Your task to perform on an android device: turn off notifications settings in the gmail app Image 0: 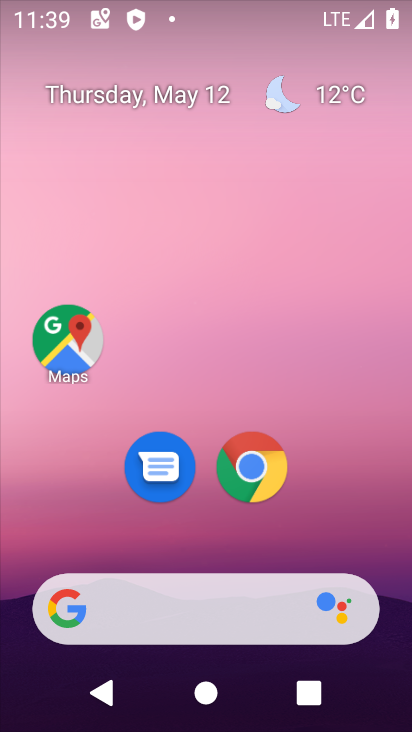
Step 0: drag from (319, 517) to (203, 10)
Your task to perform on an android device: turn off notifications settings in the gmail app Image 1: 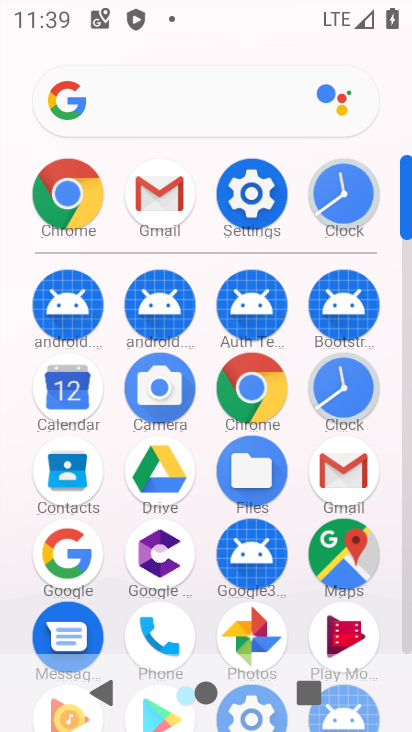
Step 1: drag from (20, 591) to (16, 291)
Your task to perform on an android device: turn off notifications settings in the gmail app Image 2: 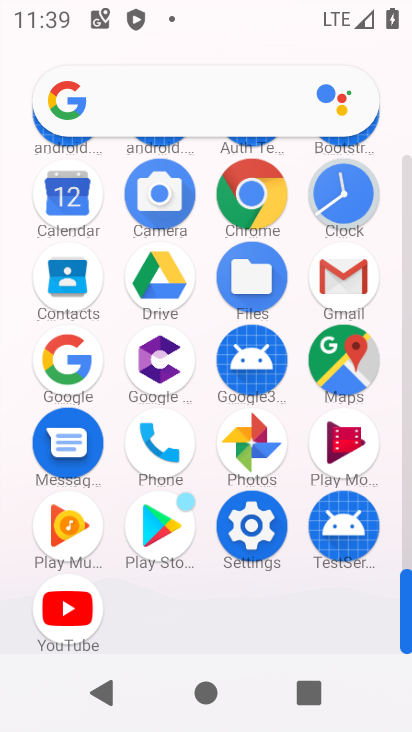
Step 2: click (342, 272)
Your task to perform on an android device: turn off notifications settings in the gmail app Image 3: 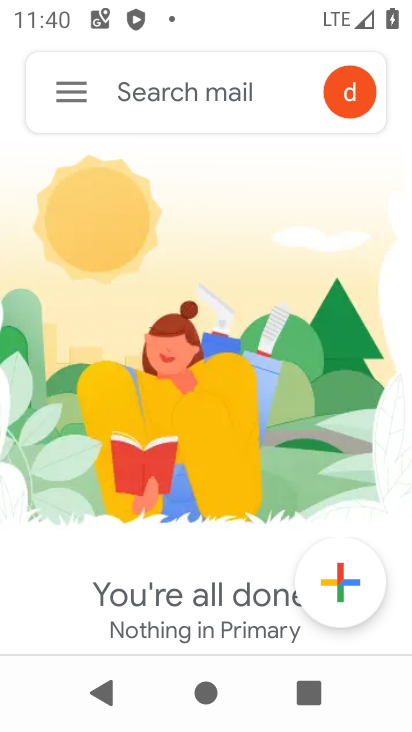
Step 3: click (61, 84)
Your task to perform on an android device: turn off notifications settings in the gmail app Image 4: 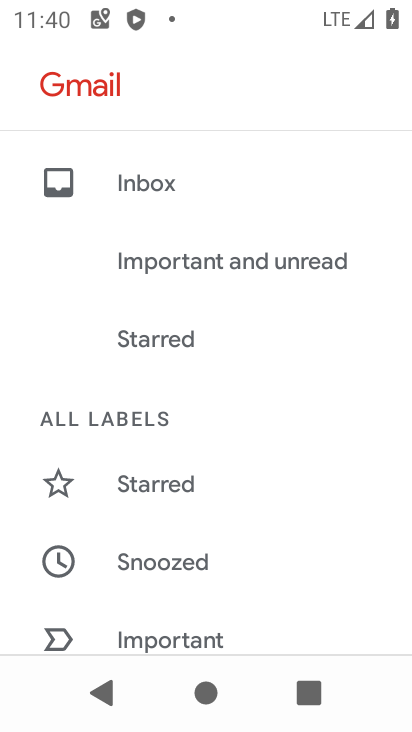
Step 4: drag from (202, 467) to (225, 130)
Your task to perform on an android device: turn off notifications settings in the gmail app Image 5: 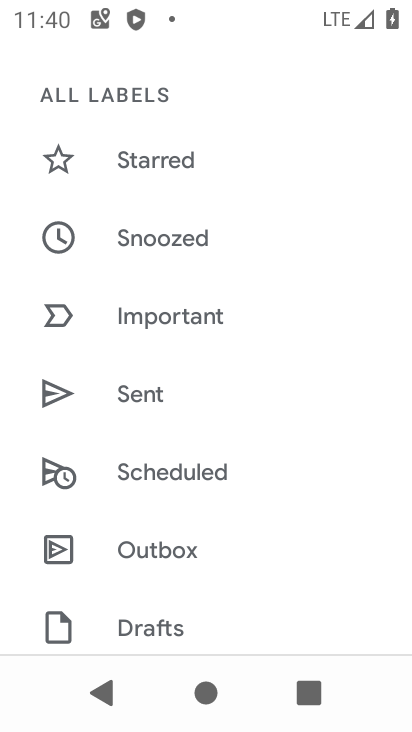
Step 5: drag from (206, 534) to (230, 157)
Your task to perform on an android device: turn off notifications settings in the gmail app Image 6: 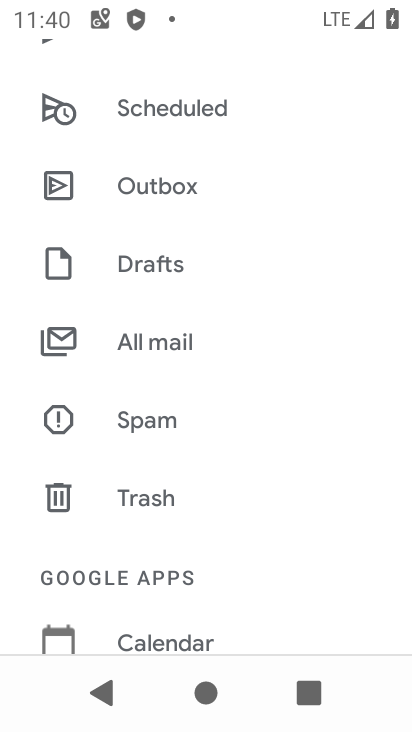
Step 6: drag from (175, 539) to (221, 180)
Your task to perform on an android device: turn off notifications settings in the gmail app Image 7: 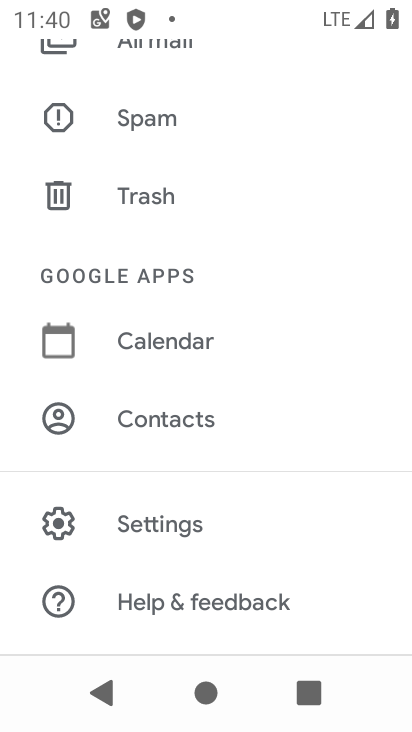
Step 7: click (184, 529)
Your task to perform on an android device: turn off notifications settings in the gmail app Image 8: 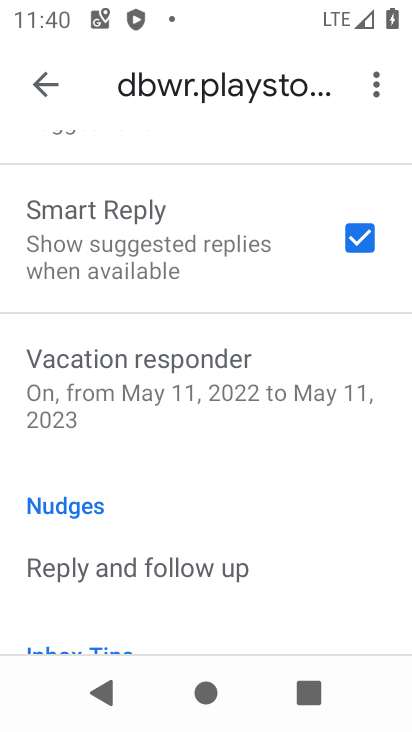
Step 8: drag from (229, 529) to (231, 187)
Your task to perform on an android device: turn off notifications settings in the gmail app Image 9: 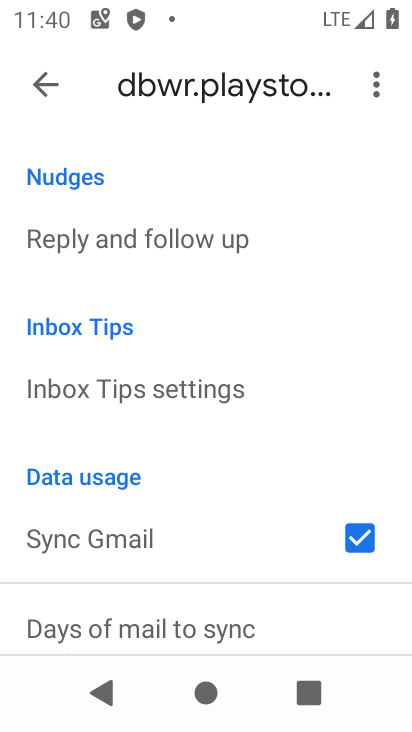
Step 9: drag from (230, 224) to (238, 551)
Your task to perform on an android device: turn off notifications settings in the gmail app Image 10: 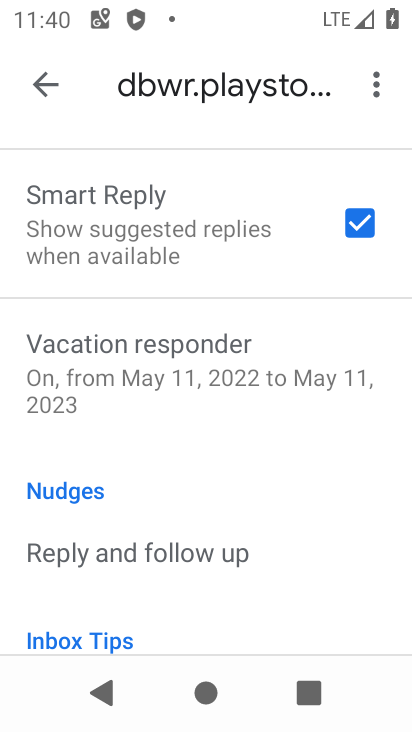
Step 10: drag from (230, 255) to (230, 597)
Your task to perform on an android device: turn off notifications settings in the gmail app Image 11: 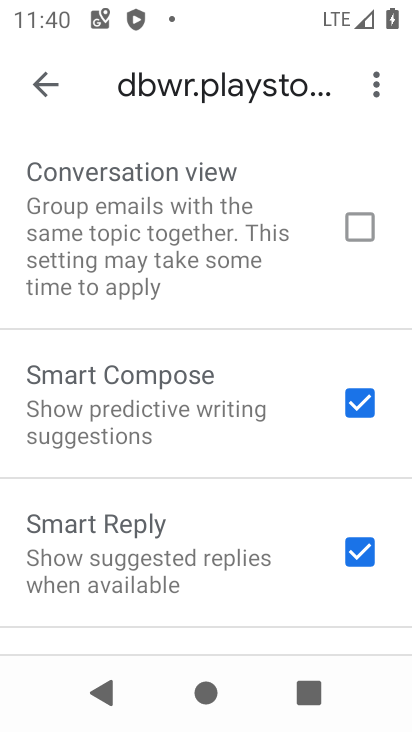
Step 11: drag from (196, 283) to (204, 589)
Your task to perform on an android device: turn off notifications settings in the gmail app Image 12: 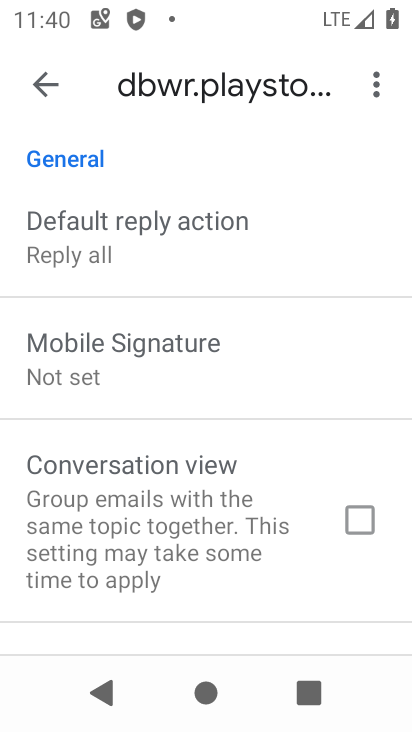
Step 12: drag from (202, 245) to (203, 546)
Your task to perform on an android device: turn off notifications settings in the gmail app Image 13: 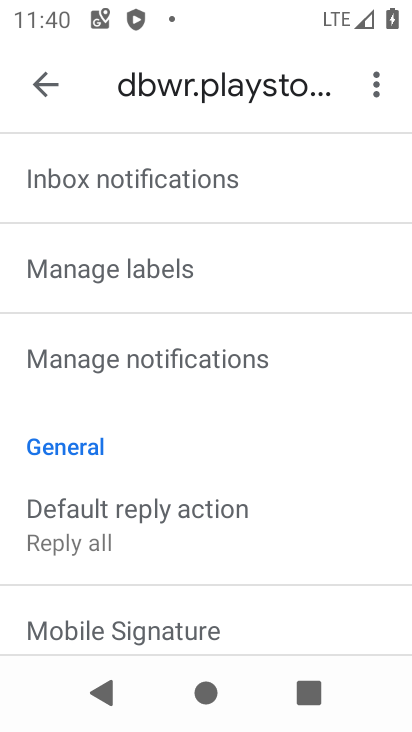
Step 13: click (193, 348)
Your task to perform on an android device: turn off notifications settings in the gmail app Image 14: 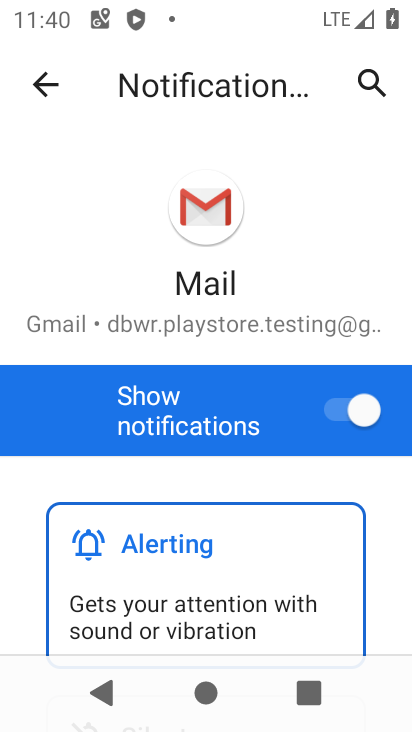
Step 14: click (329, 419)
Your task to perform on an android device: turn off notifications settings in the gmail app Image 15: 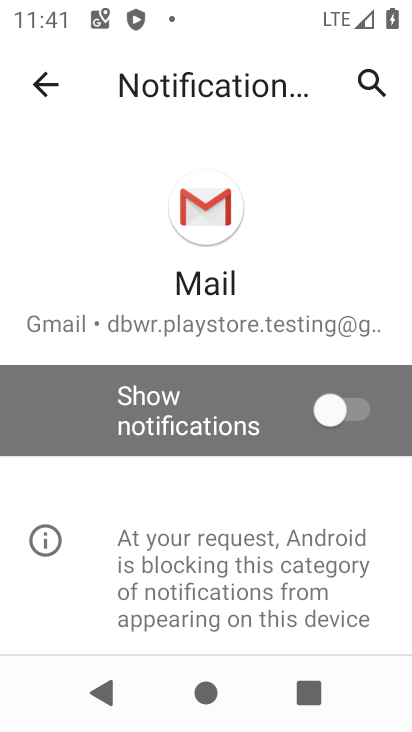
Step 15: task complete